Your task to perform on an android device: Toggle the flashlight Image 0: 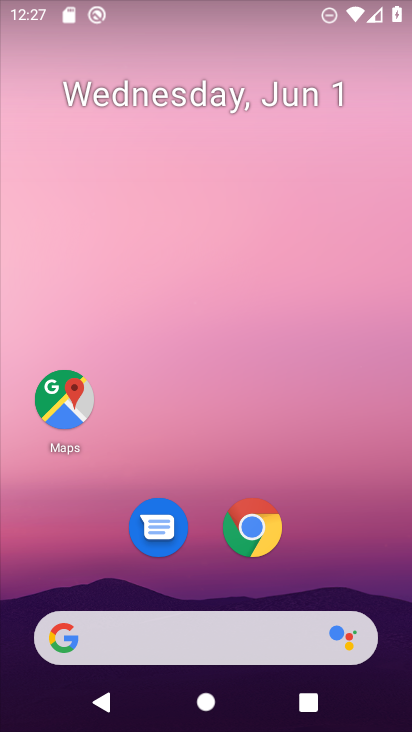
Step 0: drag from (275, 158) to (224, 655)
Your task to perform on an android device: Toggle the flashlight Image 1: 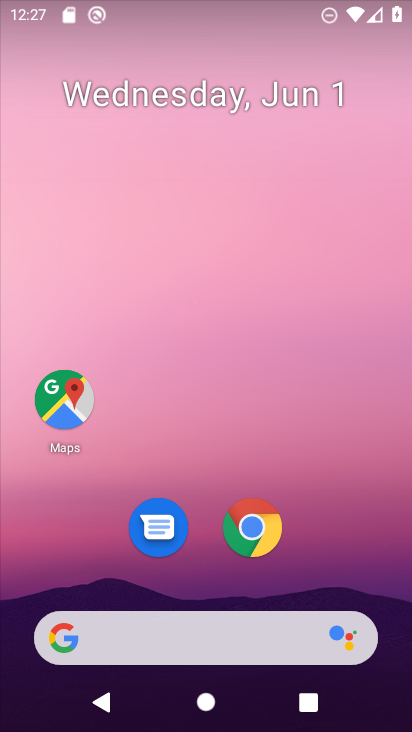
Step 1: task complete